Your task to perform on an android device: Go to Google Image 0: 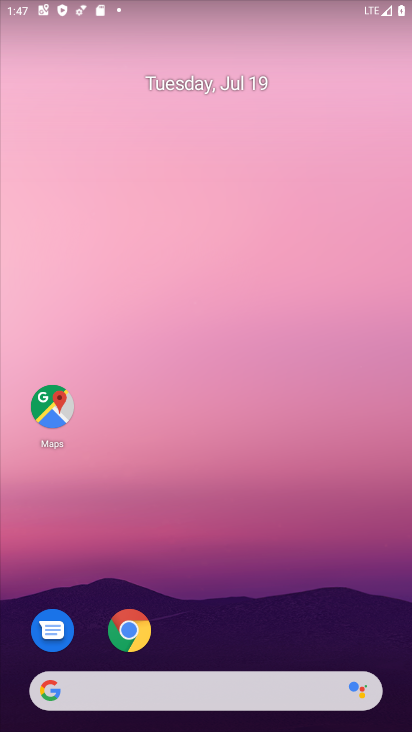
Step 0: press home button
Your task to perform on an android device: Go to Google Image 1: 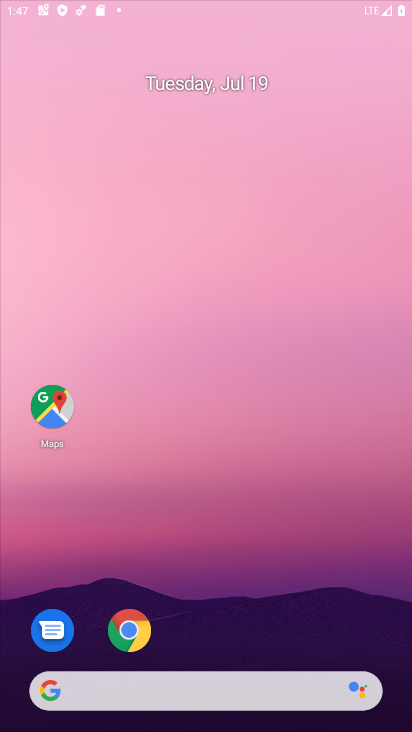
Step 1: drag from (214, 657) to (261, 24)
Your task to perform on an android device: Go to Google Image 2: 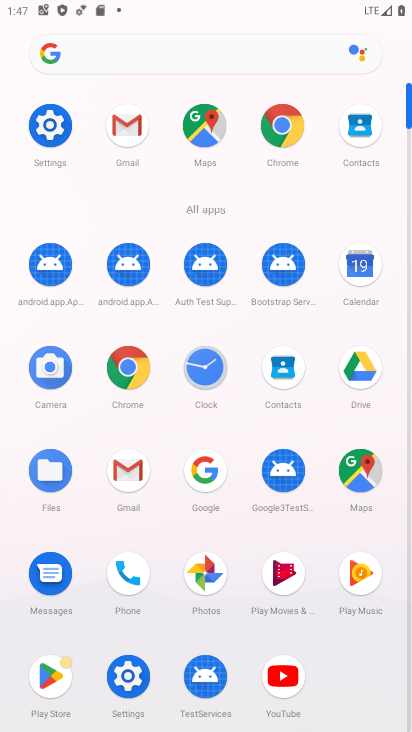
Step 2: click (202, 464)
Your task to perform on an android device: Go to Google Image 3: 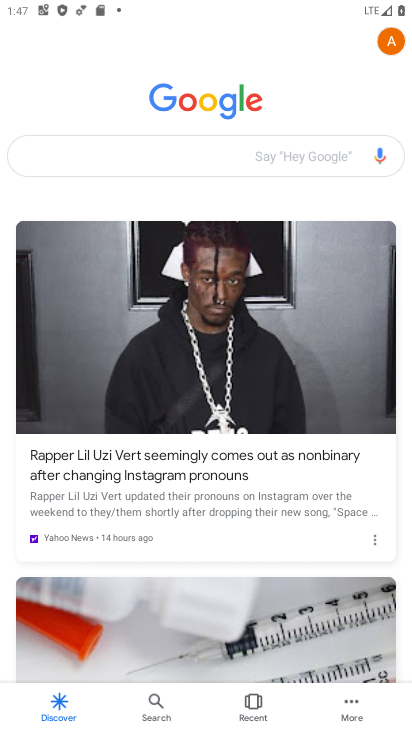
Step 3: click (157, 709)
Your task to perform on an android device: Go to Google Image 4: 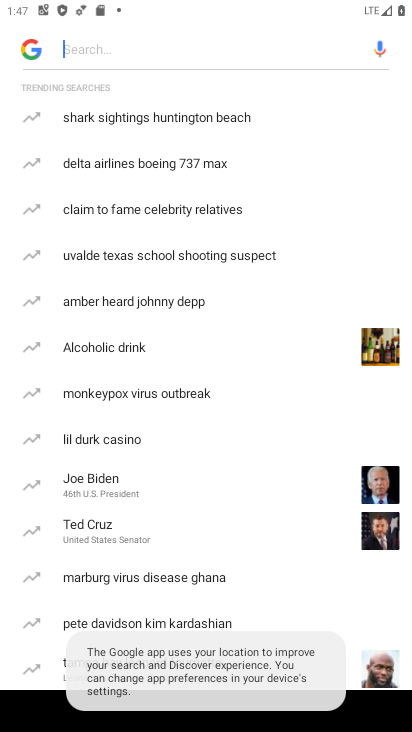
Step 4: press back button
Your task to perform on an android device: Go to Google Image 5: 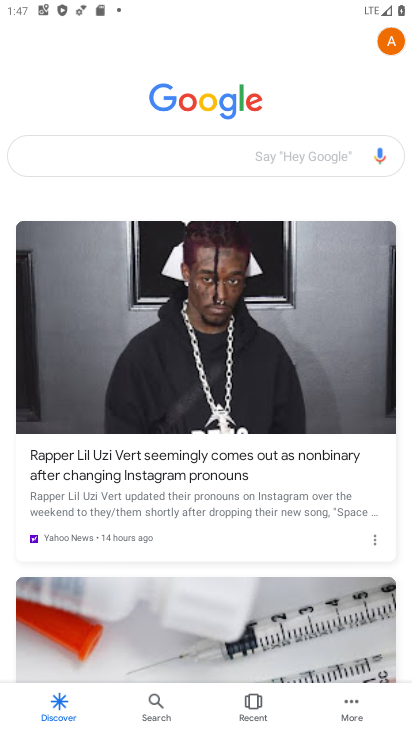
Step 5: click (258, 708)
Your task to perform on an android device: Go to Google Image 6: 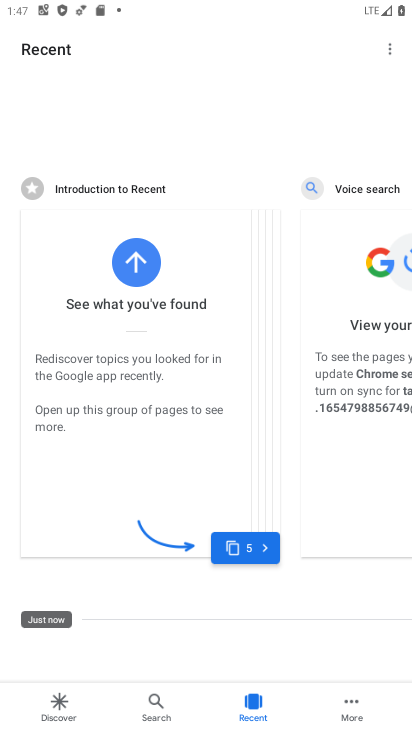
Step 6: click (346, 705)
Your task to perform on an android device: Go to Google Image 7: 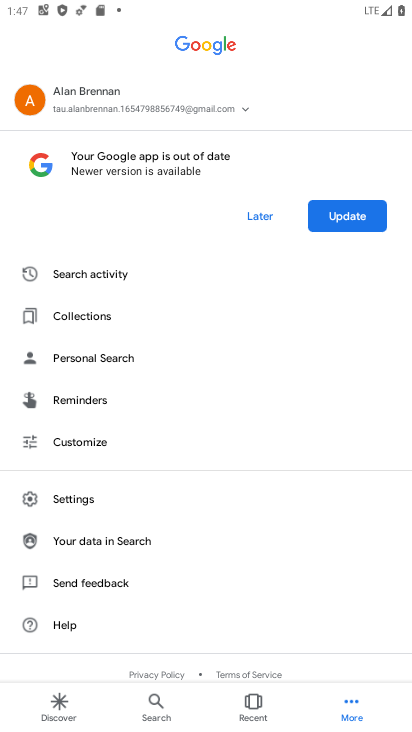
Step 7: click (258, 213)
Your task to perform on an android device: Go to Google Image 8: 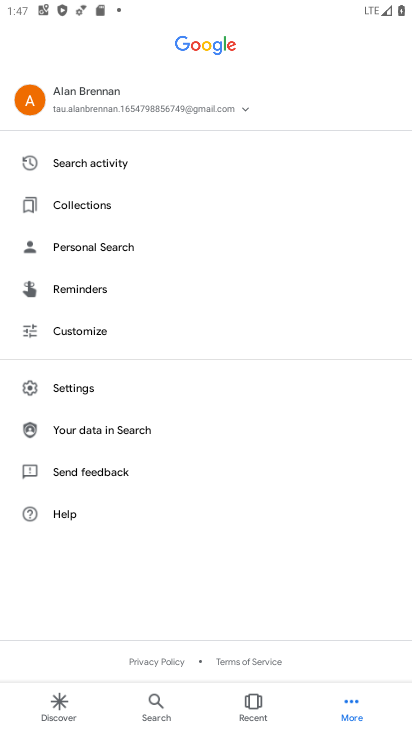
Step 8: task complete